Your task to perform on an android device: Go to accessibility settings Image 0: 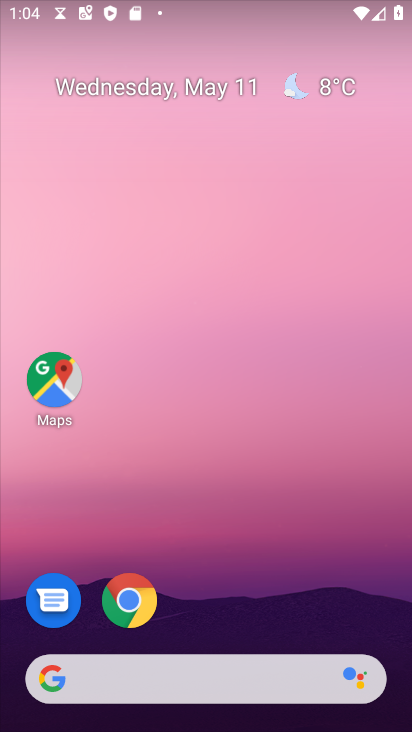
Step 0: drag from (281, 572) to (216, 33)
Your task to perform on an android device: Go to accessibility settings Image 1: 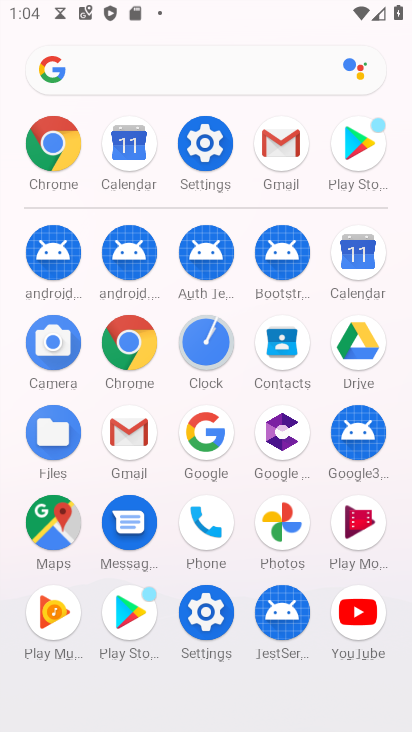
Step 1: click (206, 141)
Your task to perform on an android device: Go to accessibility settings Image 2: 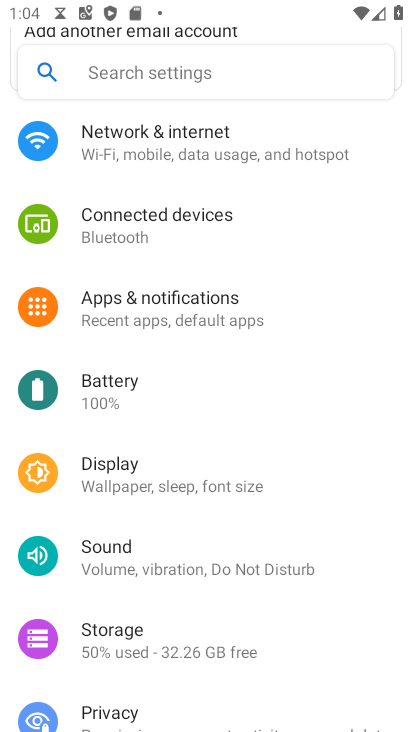
Step 2: drag from (234, 656) to (232, 240)
Your task to perform on an android device: Go to accessibility settings Image 3: 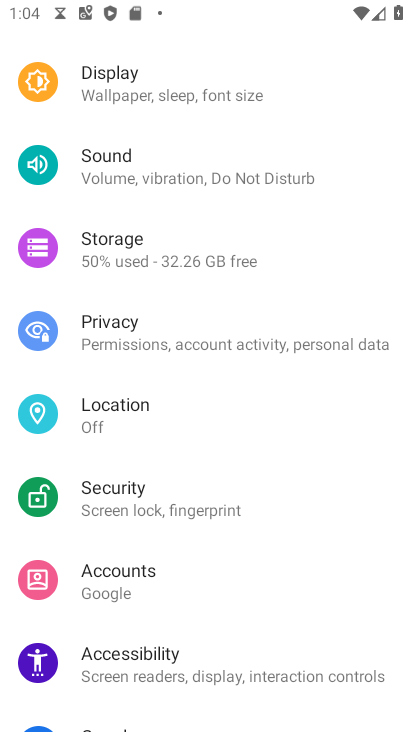
Step 3: click (231, 662)
Your task to perform on an android device: Go to accessibility settings Image 4: 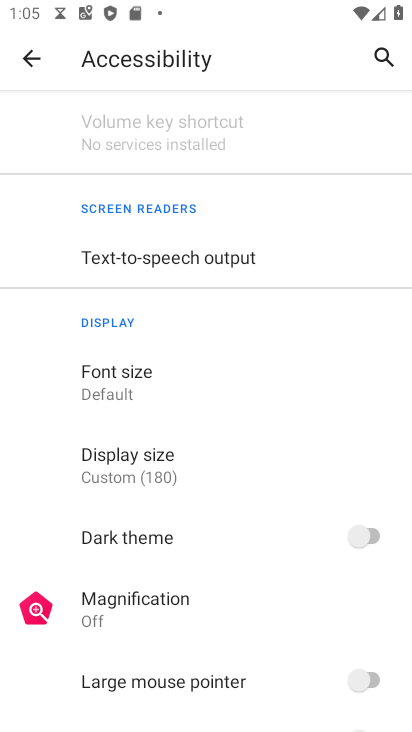
Step 4: task complete